Your task to perform on an android device: Open Amazon Image 0: 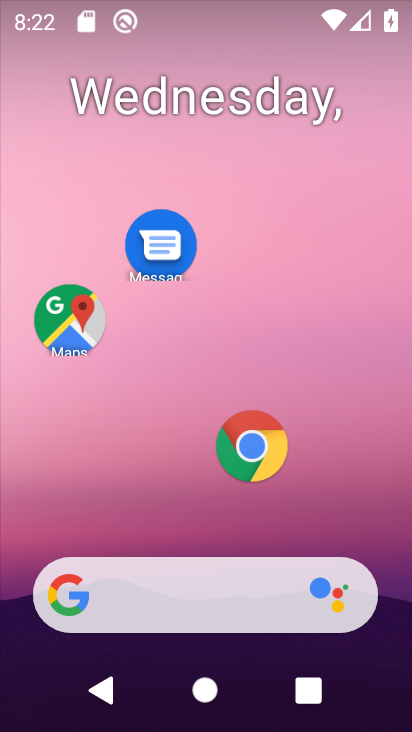
Step 0: press home button
Your task to perform on an android device: Open Amazon Image 1: 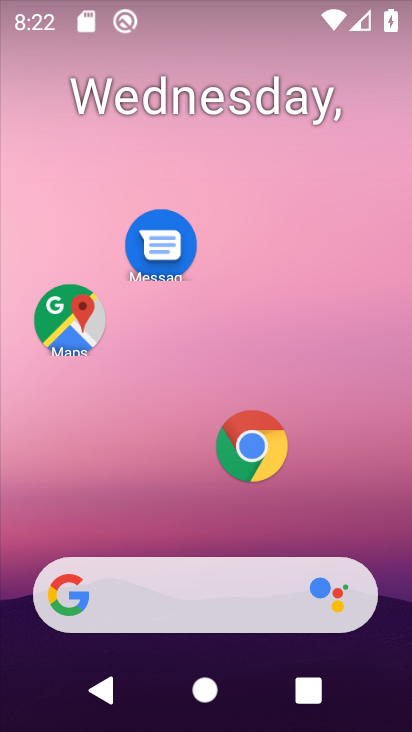
Step 1: press home button
Your task to perform on an android device: Open Amazon Image 2: 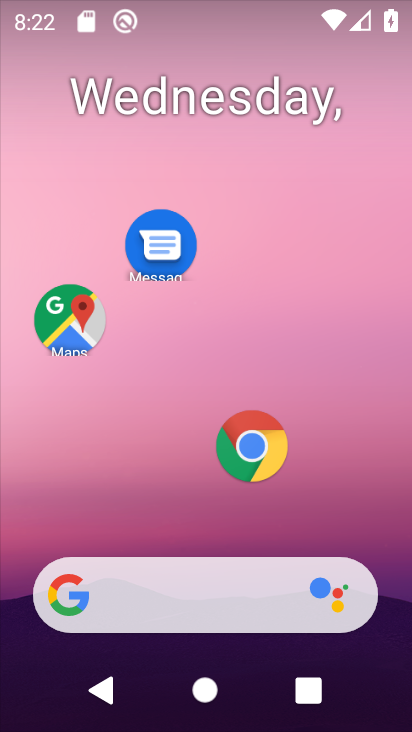
Step 2: click (249, 434)
Your task to perform on an android device: Open Amazon Image 3: 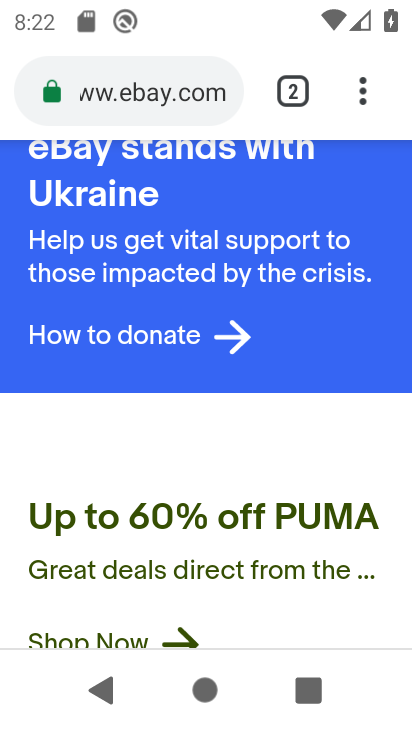
Step 3: click (294, 85)
Your task to perform on an android device: Open Amazon Image 4: 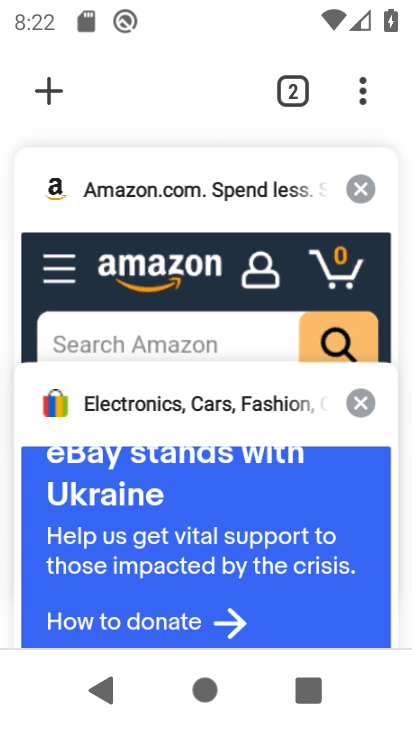
Step 4: click (229, 246)
Your task to perform on an android device: Open Amazon Image 5: 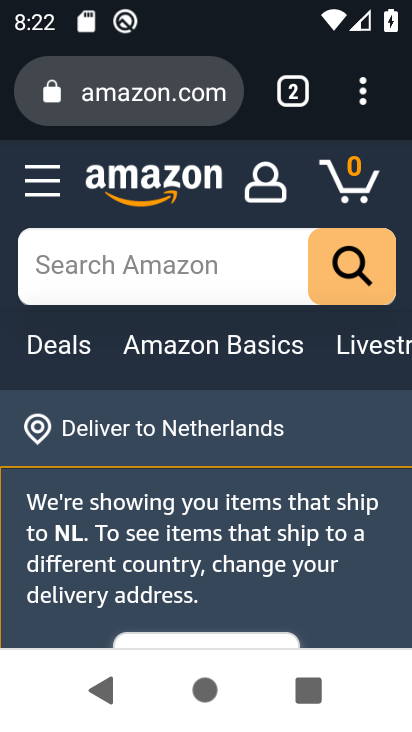
Step 5: task complete